Your task to perform on an android device: Search for Mexican restaurants on Maps Image 0: 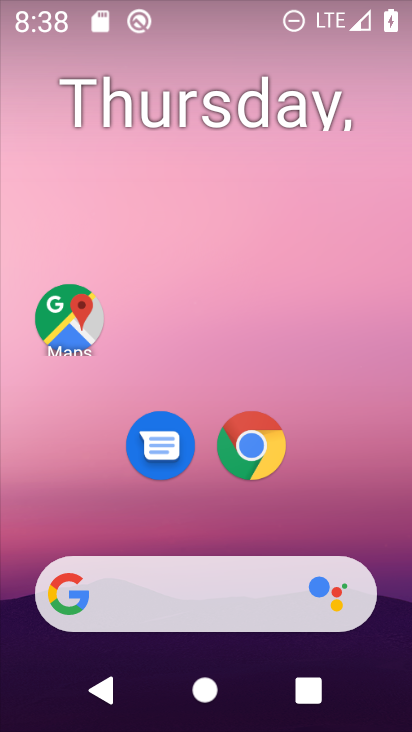
Step 0: drag from (405, 644) to (244, 56)
Your task to perform on an android device: Search for Mexican restaurants on Maps Image 1: 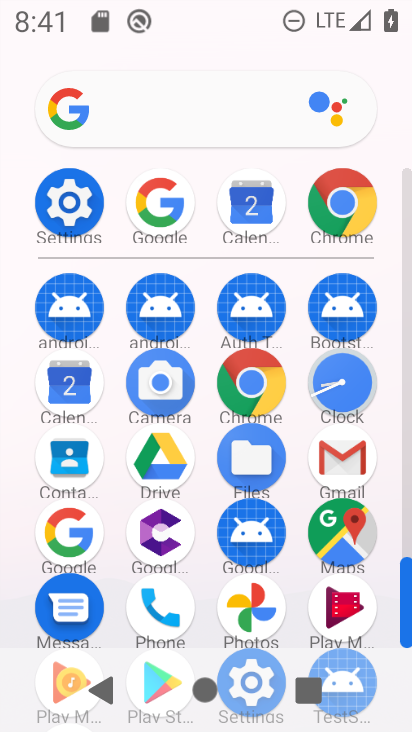
Step 1: click (355, 515)
Your task to perform on an android device: Search for Mexican restaurants on Maps Image 2: 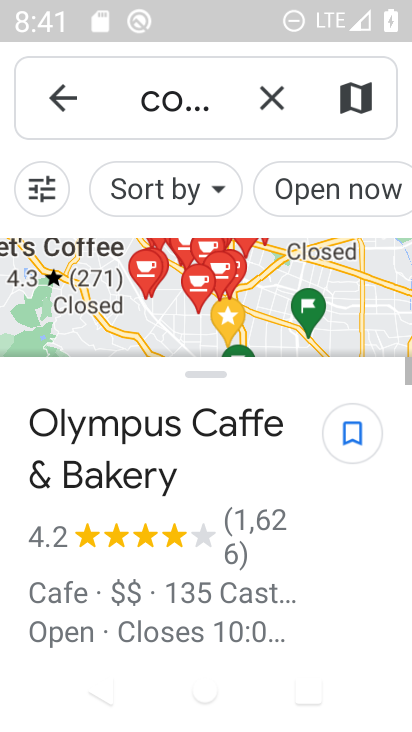
Step 2: click (264, 97)
Your task to perform on an android device: Search for Mexican restaurants on Maps Image 3: 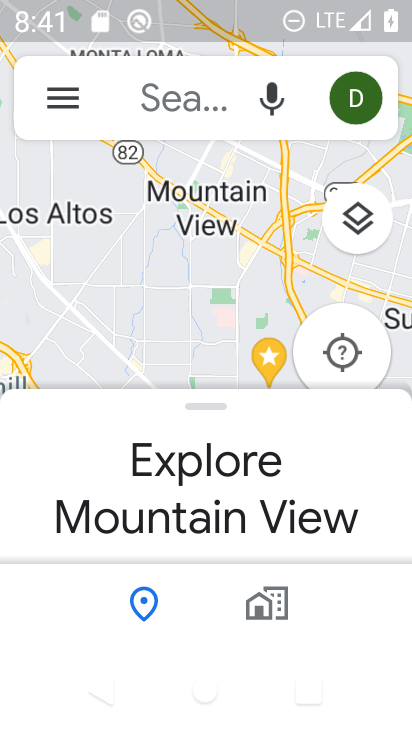
Step 3: click (159, 109)
Your task to perform on an android device: Search for Mexican restaurants on Maps Image 4: 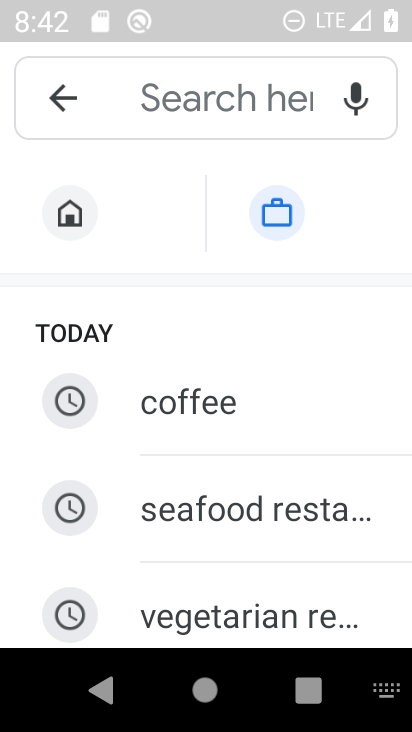
Step 4: drag from (227, 542) to (239, 60)
Your task to perform on an android device: Search for Mexican restaurants on Maps Image 5: 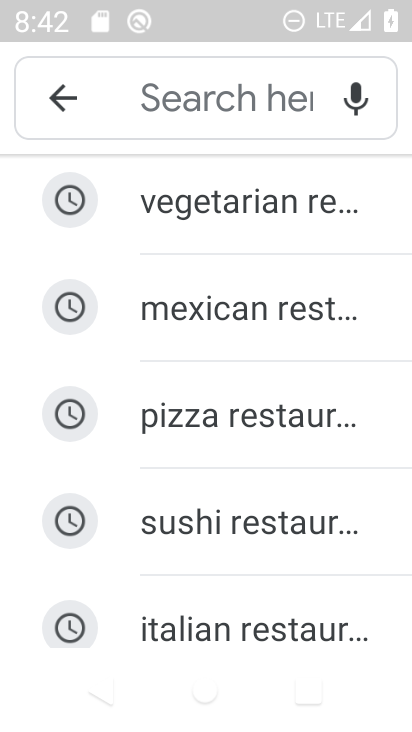
Step 5: click (298, 295)
Your task to perform on an android device: Search for Mexican restaurants on Maps Image 6: 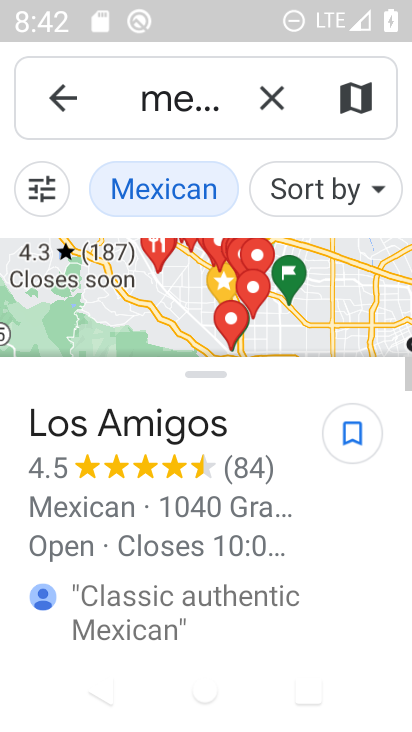
Step 6: task complete